Your task to perform on an android device: Show me the alarms in the clock app Image 0: 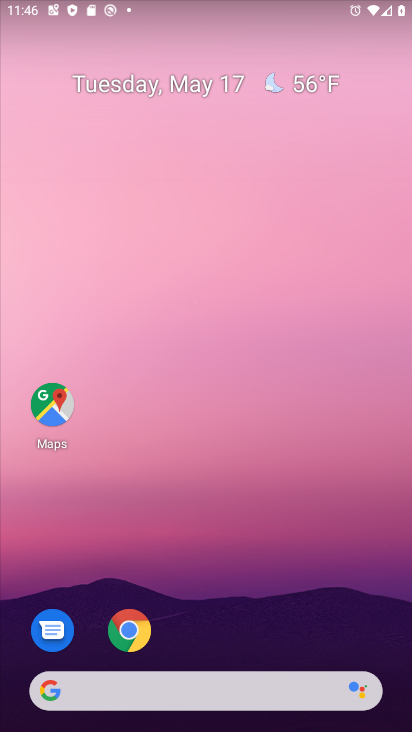
Step 0: drag from (366, 624) to (349, 168)
Your task to perform on an android device: Show me the alarms in the clock app Image 1: 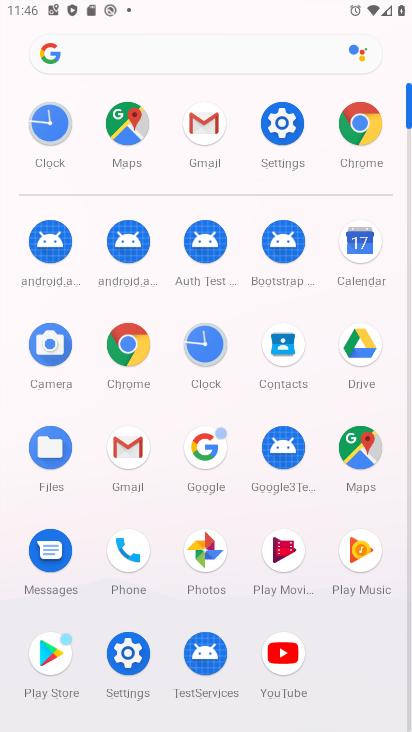
Step 1: click (211, 353)
Your task to perform on an android device: Show me the alarms in the clock app Image 2: 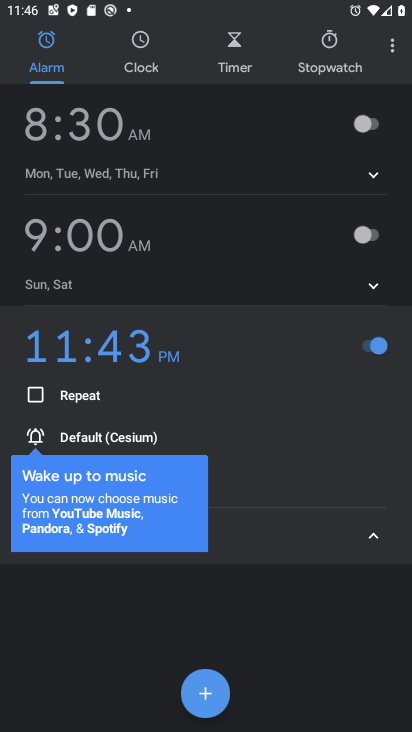
Step 2: task complete